Your task to perform on an android device: search for starred emails in the gmail app Image 0: 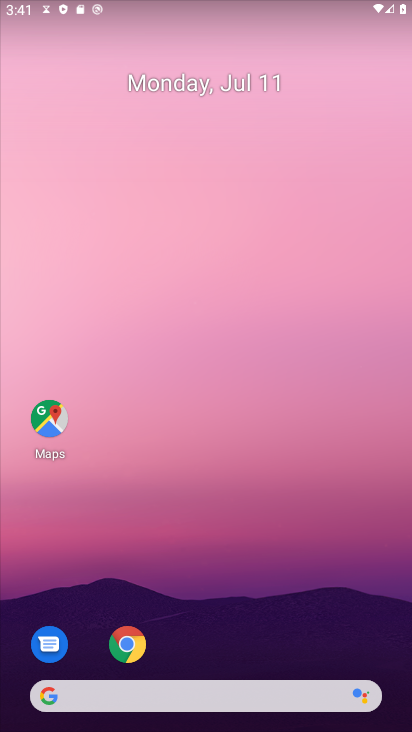
Step 0: drag from (210, 716) to (190, 67)
Your task to perform on an android device: search for starred emails in the gmail app Image 1: 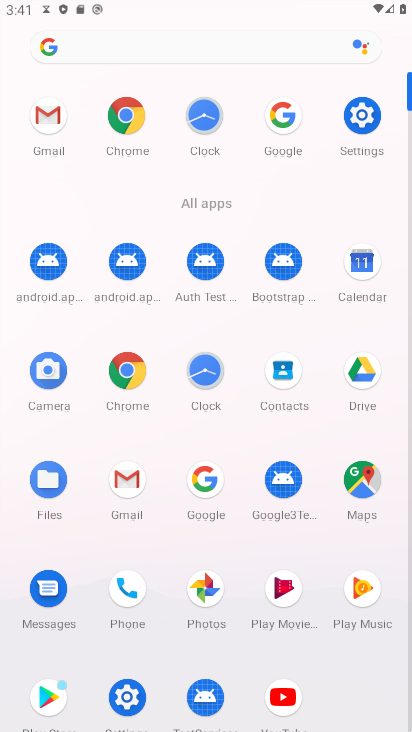
Step 1: click (127, 480)
Your task to perform on an android device: search for starred emails in the gmail app Image 2: 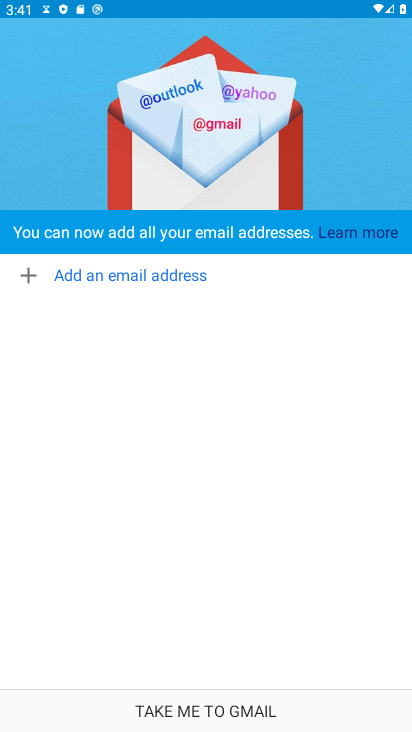
Step 2: task complete